Your task to perform on an android device: check out phone information Image 0: 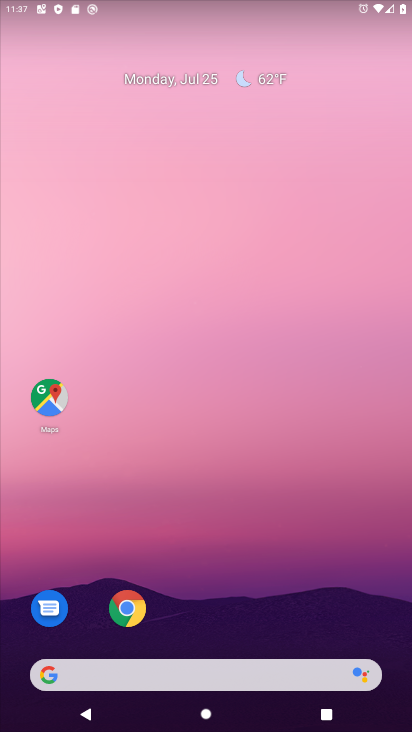
Step 0: drag from (244, 329) to (257, 10)
Your task to perform on an android device: check out phone information Image 1: 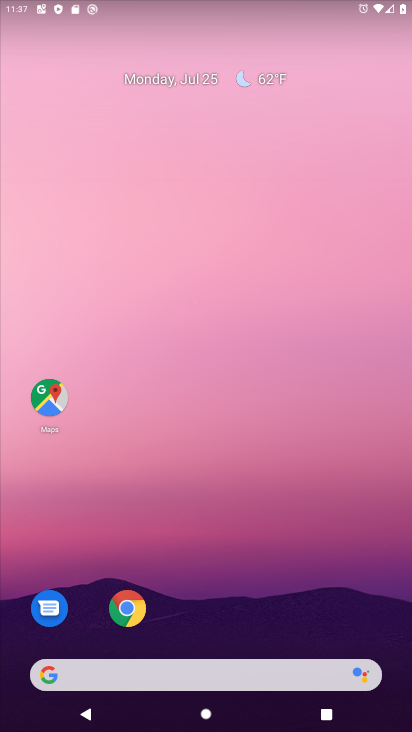
Step 1: drag from (218, 589) to (266, 6)
Your task to perform on an android device: check out phone information Image 2: 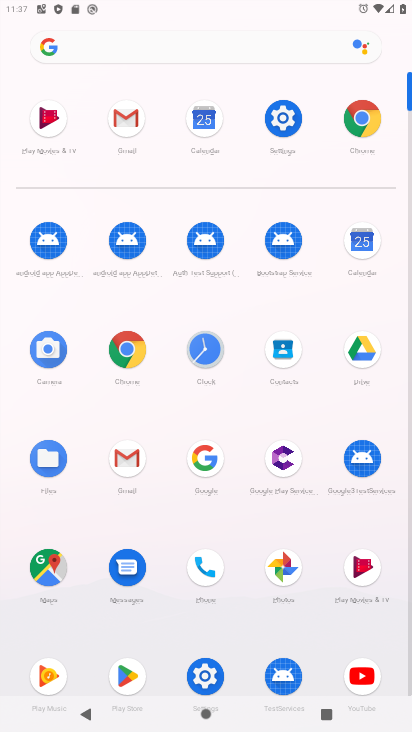
Step 2: click (198, 673)
Your task to perform on an android device: check out phone information Image 3: 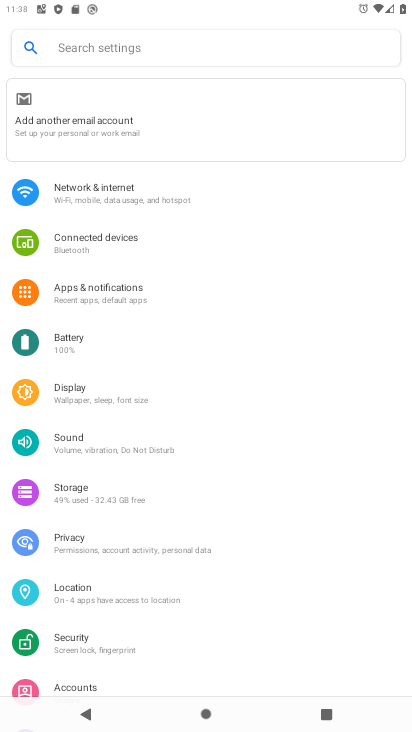
Step 3: drag from (143, 520) to (203, 24)
Your task to perform on an android device: check out phone information Image 4: 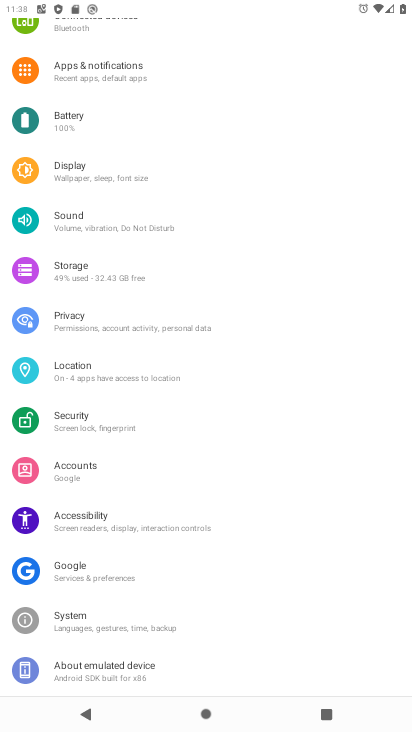
Step 4: click (116, 680)
Your task to perform on an android device: check out phone information Image 5: 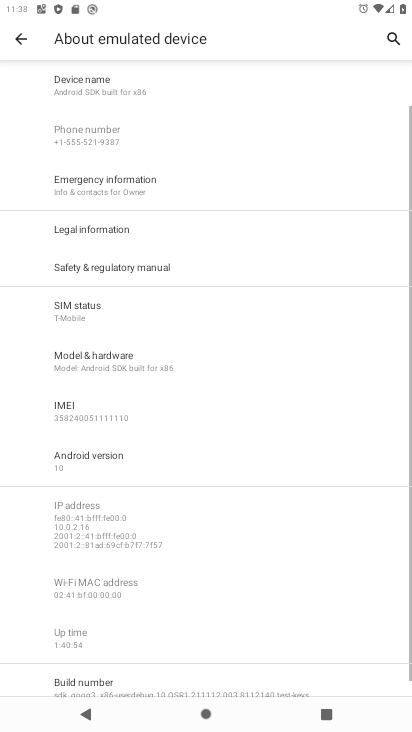
Step 5: task complete